Your task to perform on an android device: open app "Messages" (install if not already installed) Image 0: 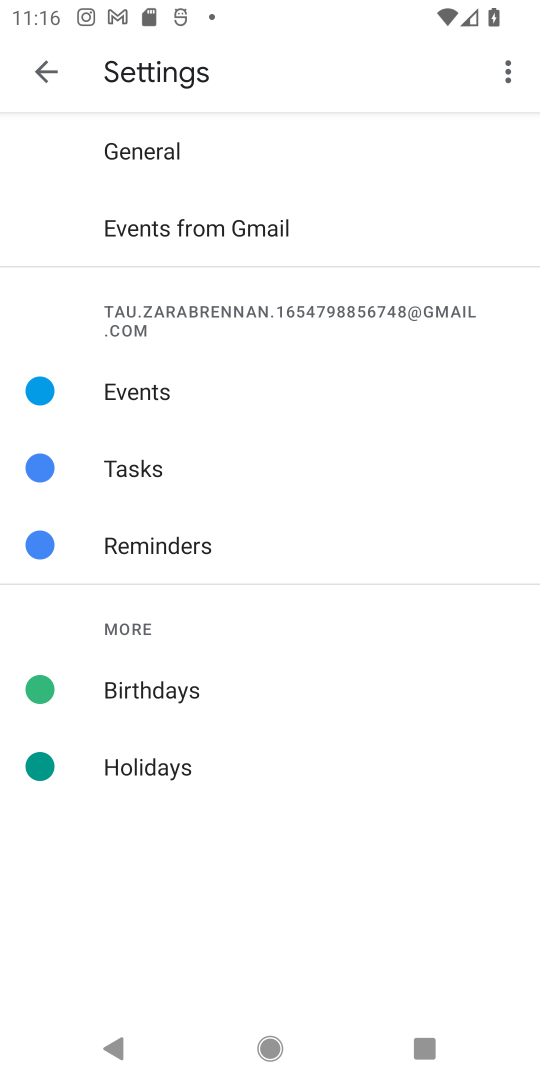
Step 0: press home button
Your task to perform on an android device: open app "Messages" (install if not already installed) Image 1: 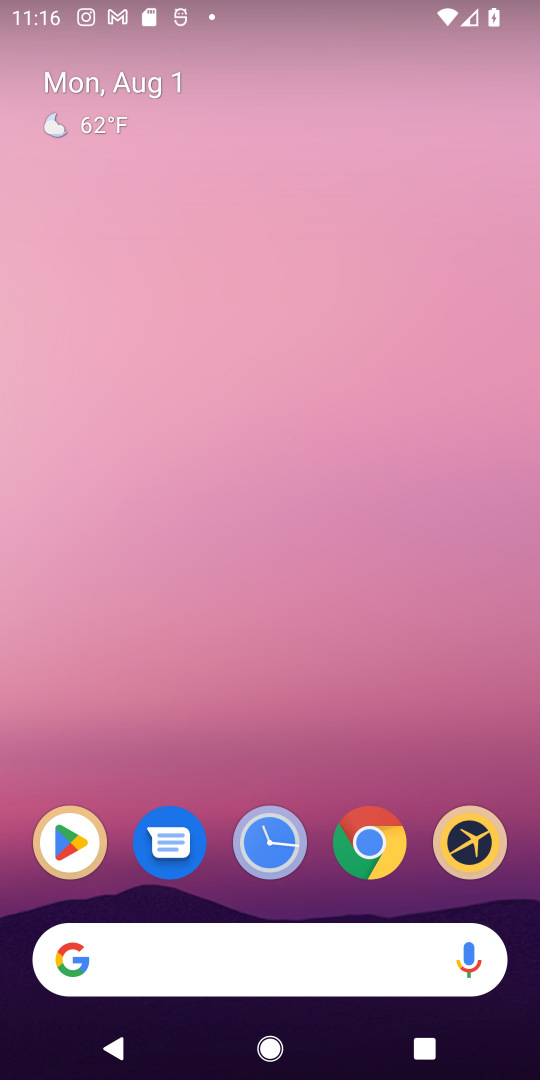
Step 1: click (165, 828)
Your task to perform on an android device: open app "Messages" (install if not already installed) Image 2: 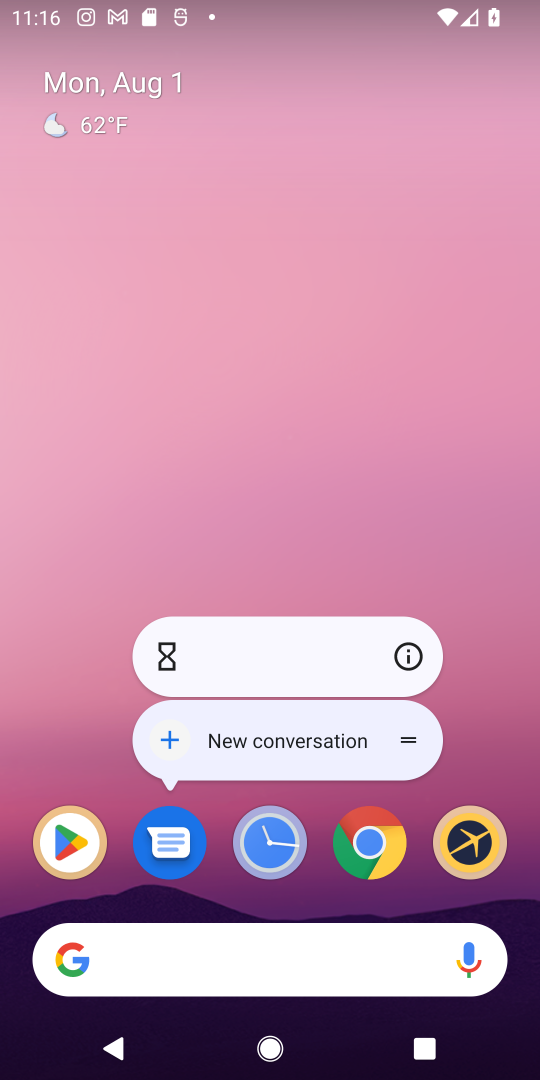
Step 2: click (166, 844)
Your task to perform on an android device: open app "Messages" (install if not already installed) Image 3: 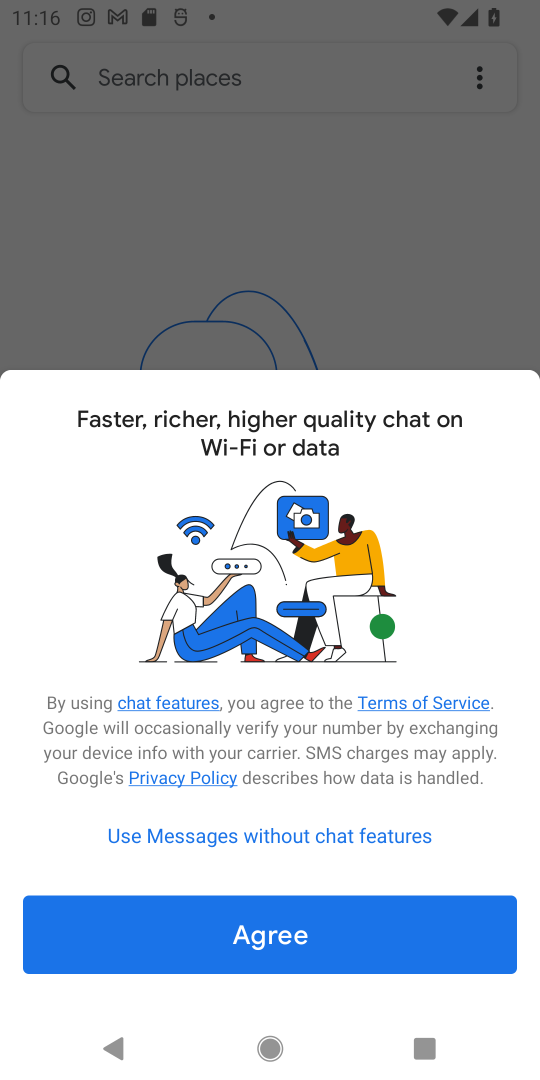
Step 3: task complete